Your task to perform on an android device: When is my next meeting? Image 0: 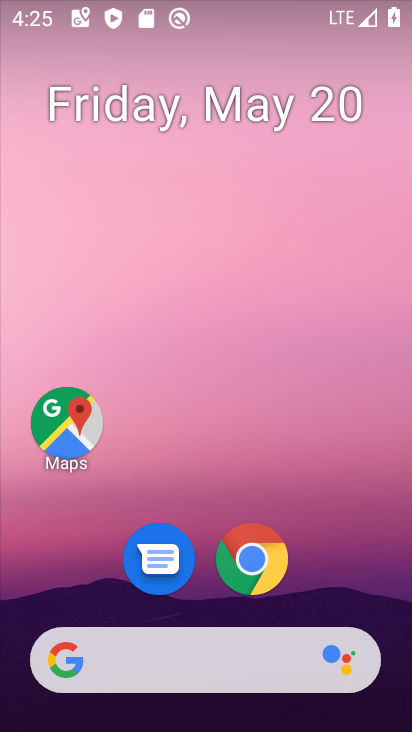
Step 0: drag from (252, 460) to (251, 148)
Your task to perform on an android device: When is my next meeting? Image 1: 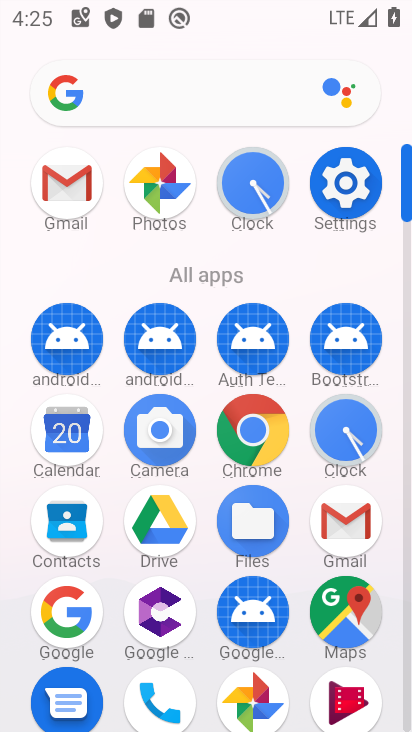
Step 1: click (73, 440)
Your task to perform on an android device: When is my next meeting? Image 2: 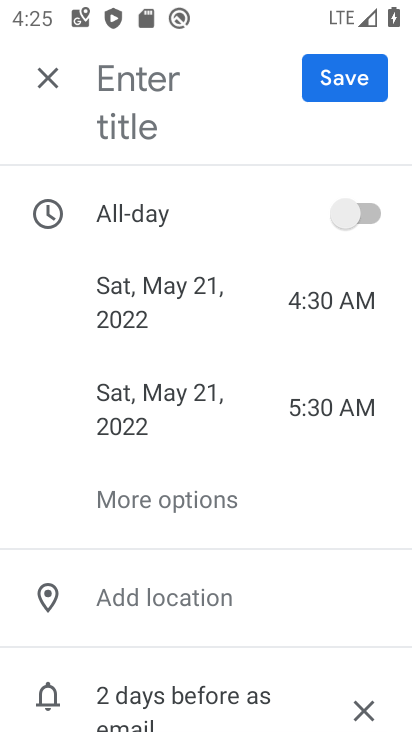
Step 2: task complete